Your task to perform on an android device: install app "Google Translate" Image 0: 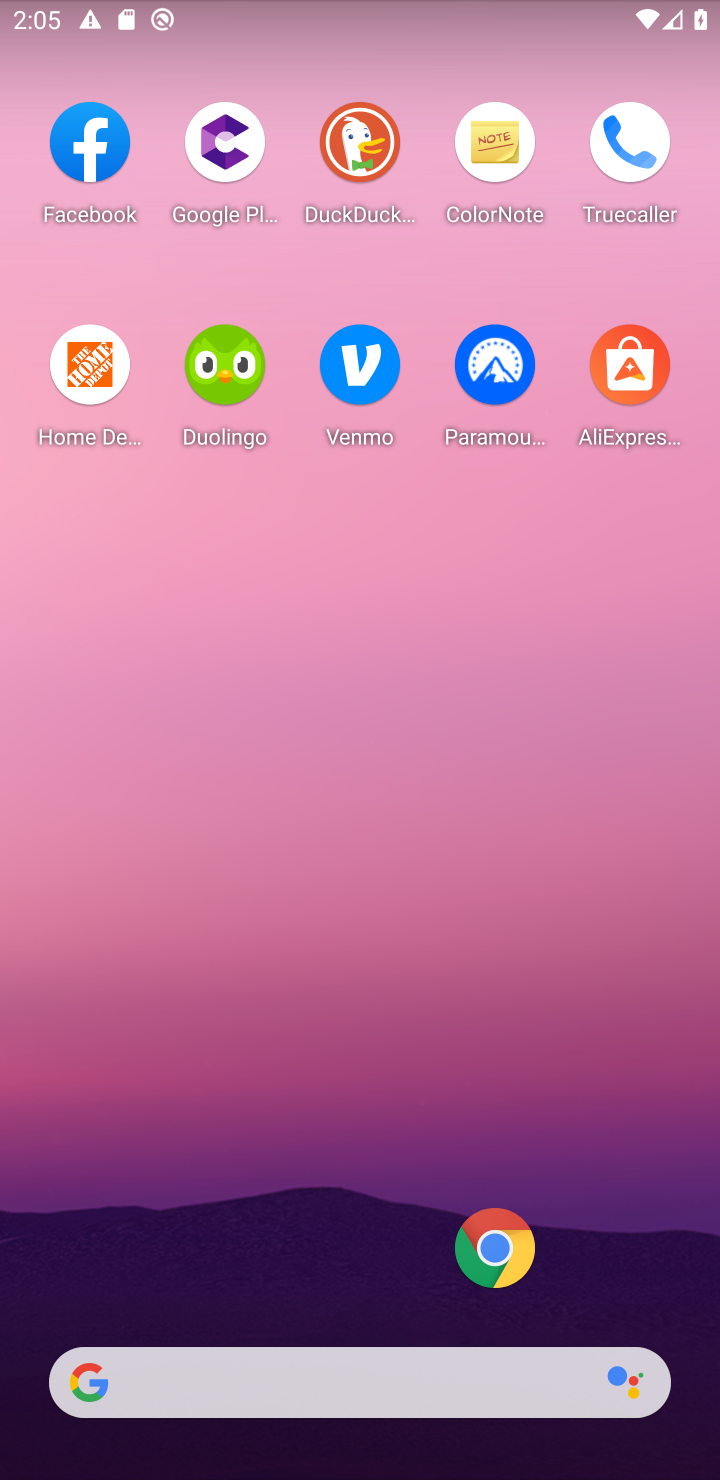
Step 0: click (54, 83)
Your task to perform on an android device: install app "Google Translate" Image 1: 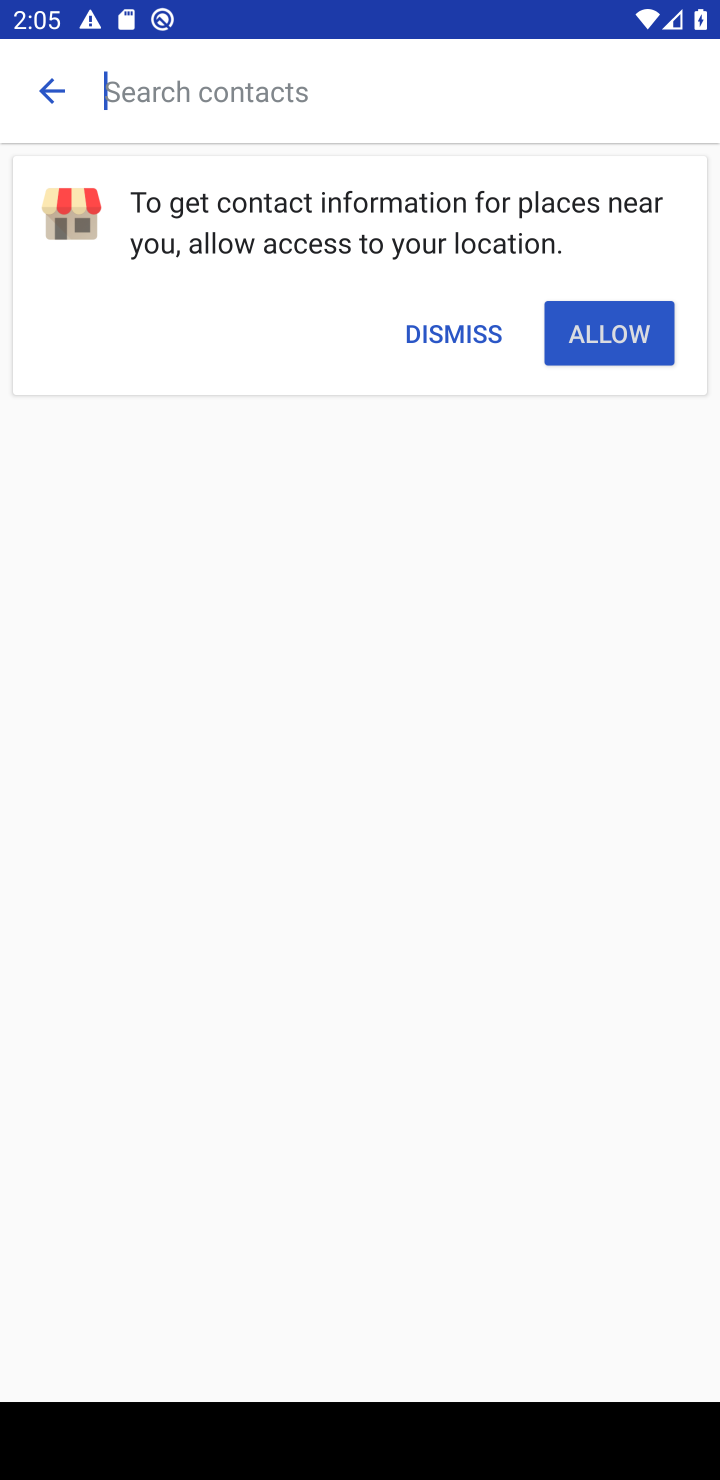
Step 1: drag from (171, 1273) to (226, 545)
Your task to perform on an android device: install app "Google Translate" Image 2: 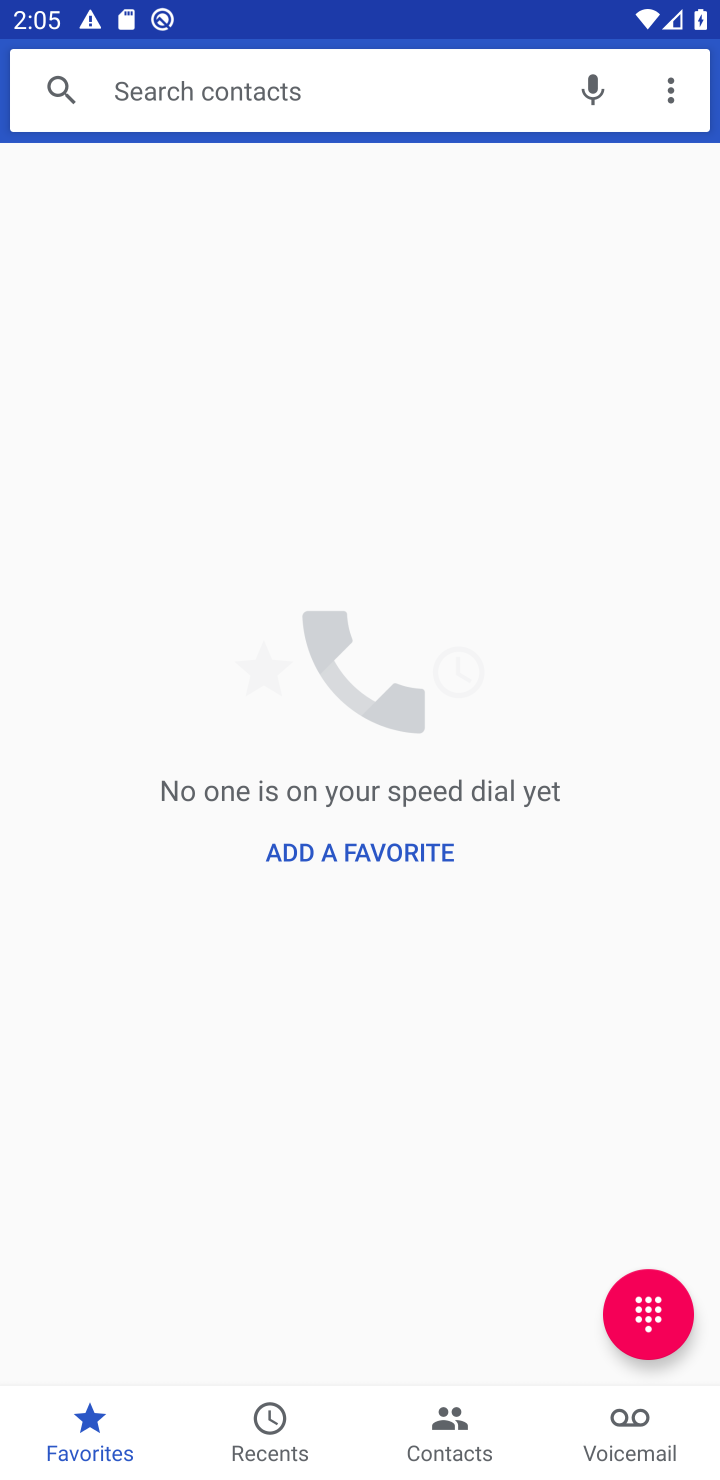
Step 2: press home button
Your task to perform on an android device: install app "Google Translate" Image 3: 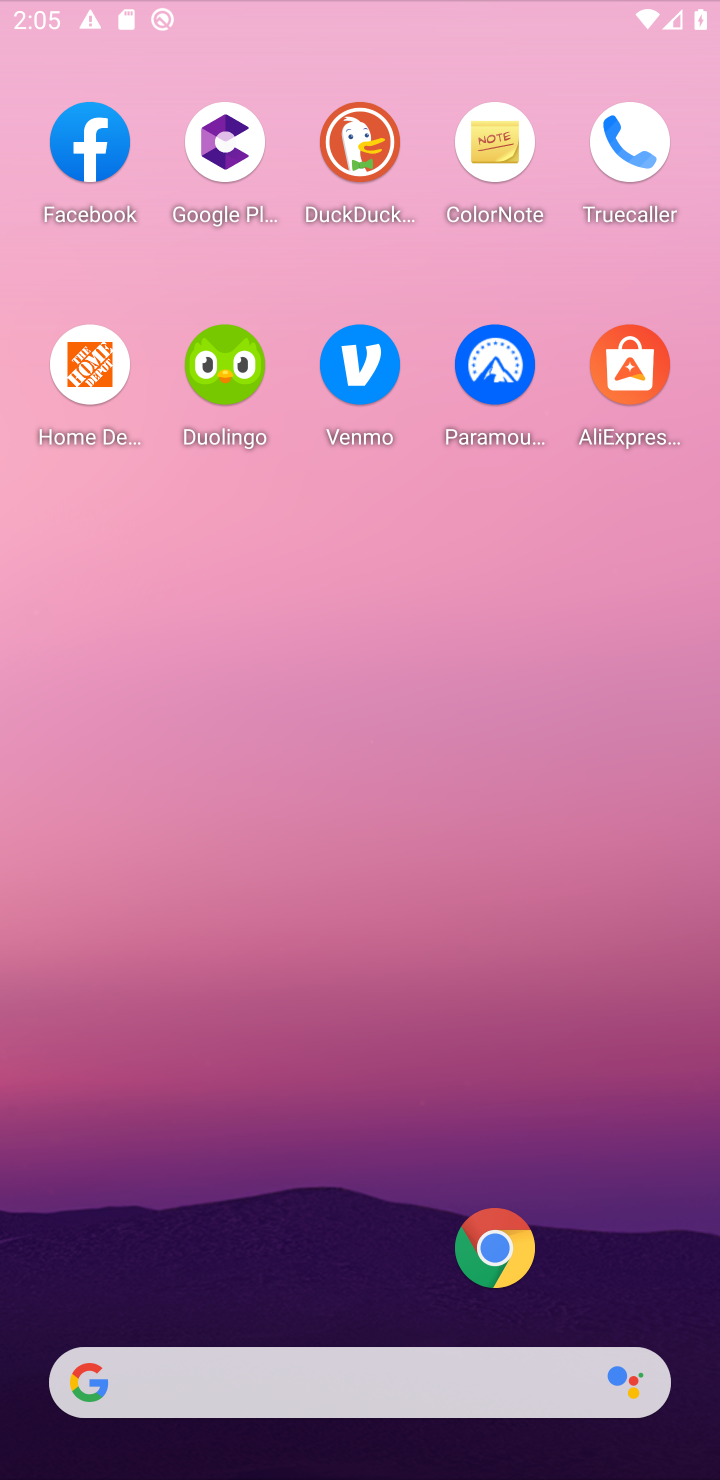
Step 3: drag from (397, 718) to (446, 405)
Your task to perform on an android device: install app "Google Translate" Image 4: 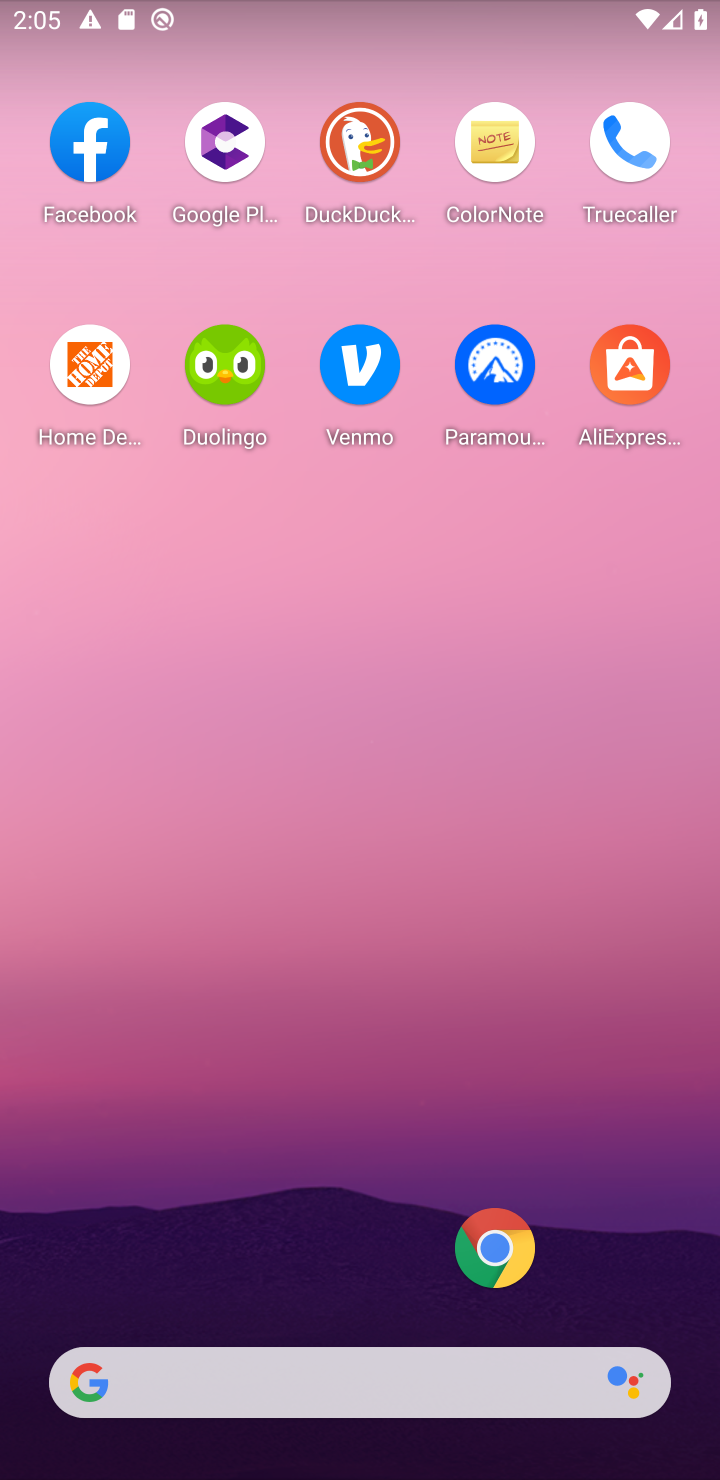
Step 4: drag from (263, 1254) to (271, 202)
Your task to perform on an android device: install app "Google Translate" Image 5: 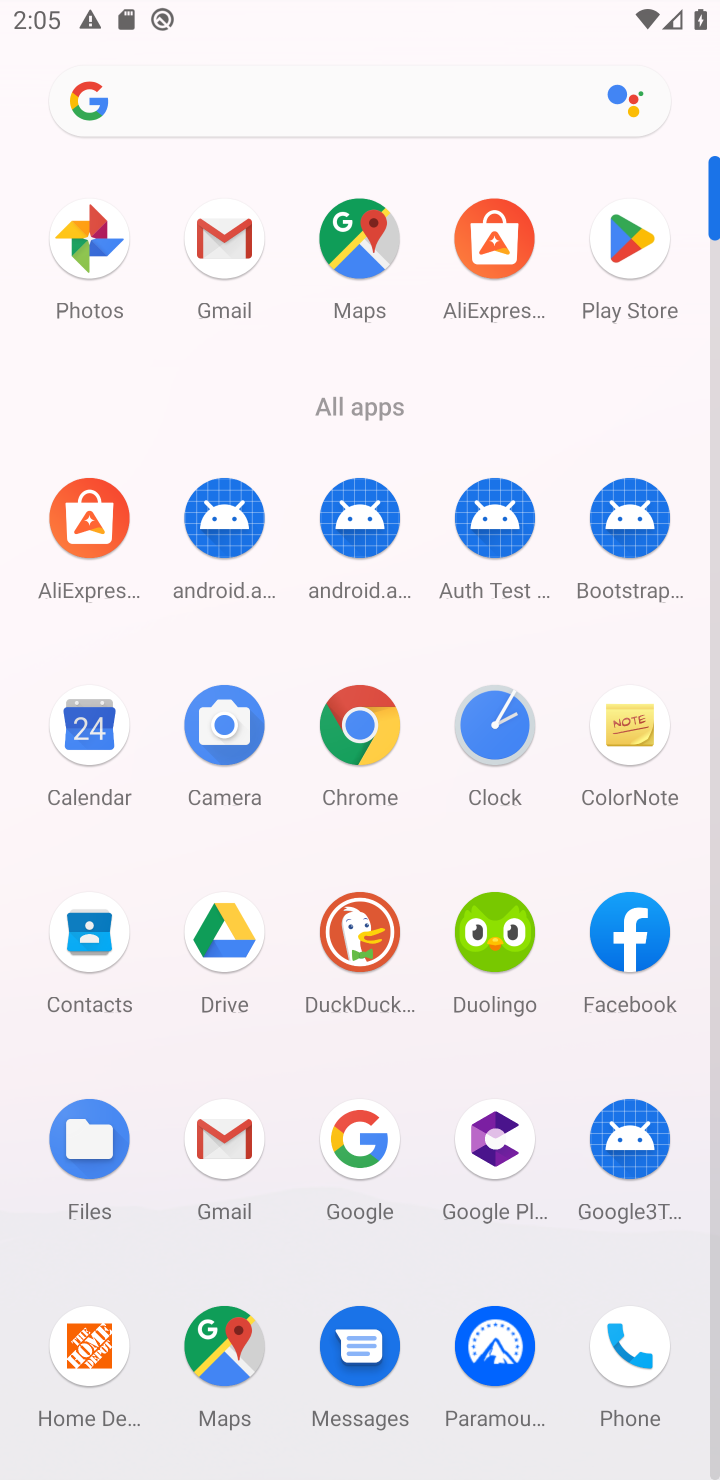
Step 5: click (642, 221)
Your task to perform on an android device: install app "Google Translate" Image 6: 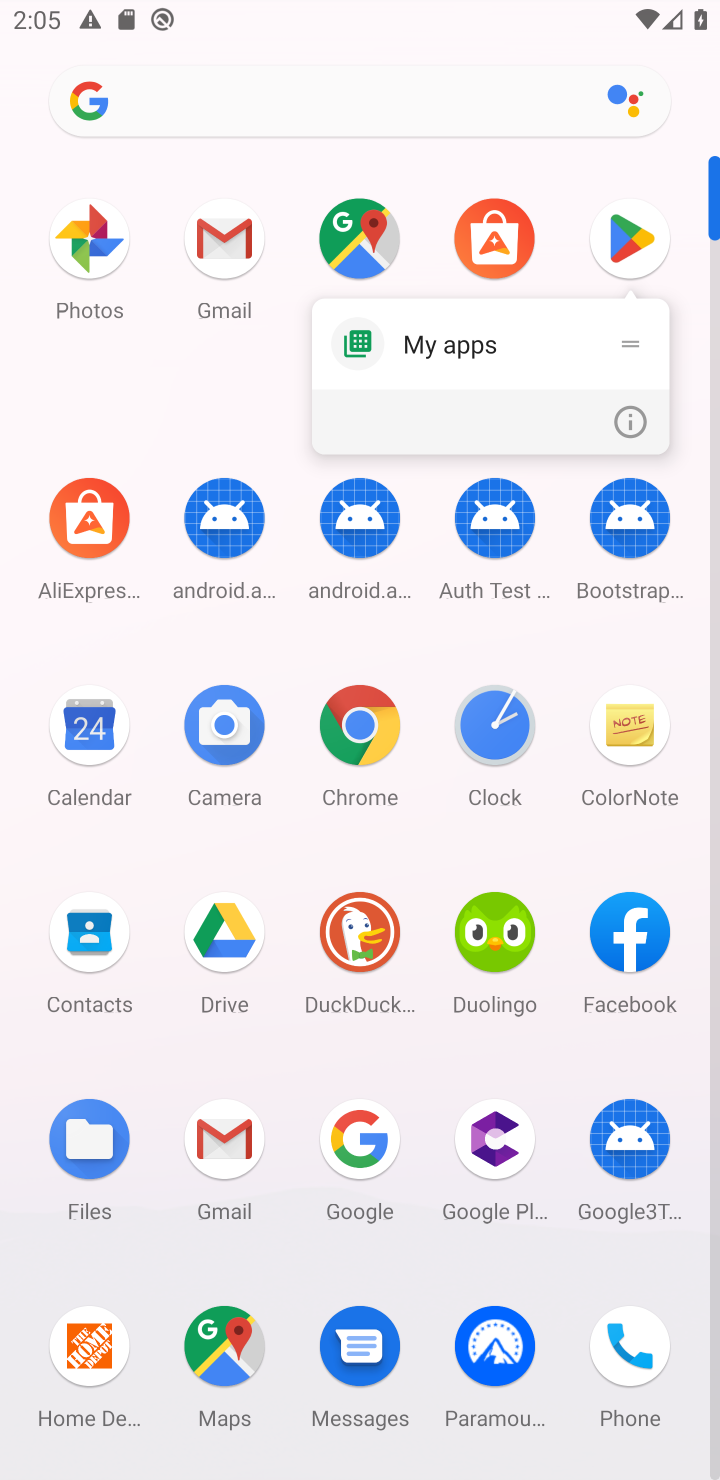
Step 6: click (631, 230)
Your task to perform on an android device: install app "Google Translate" Image 7: 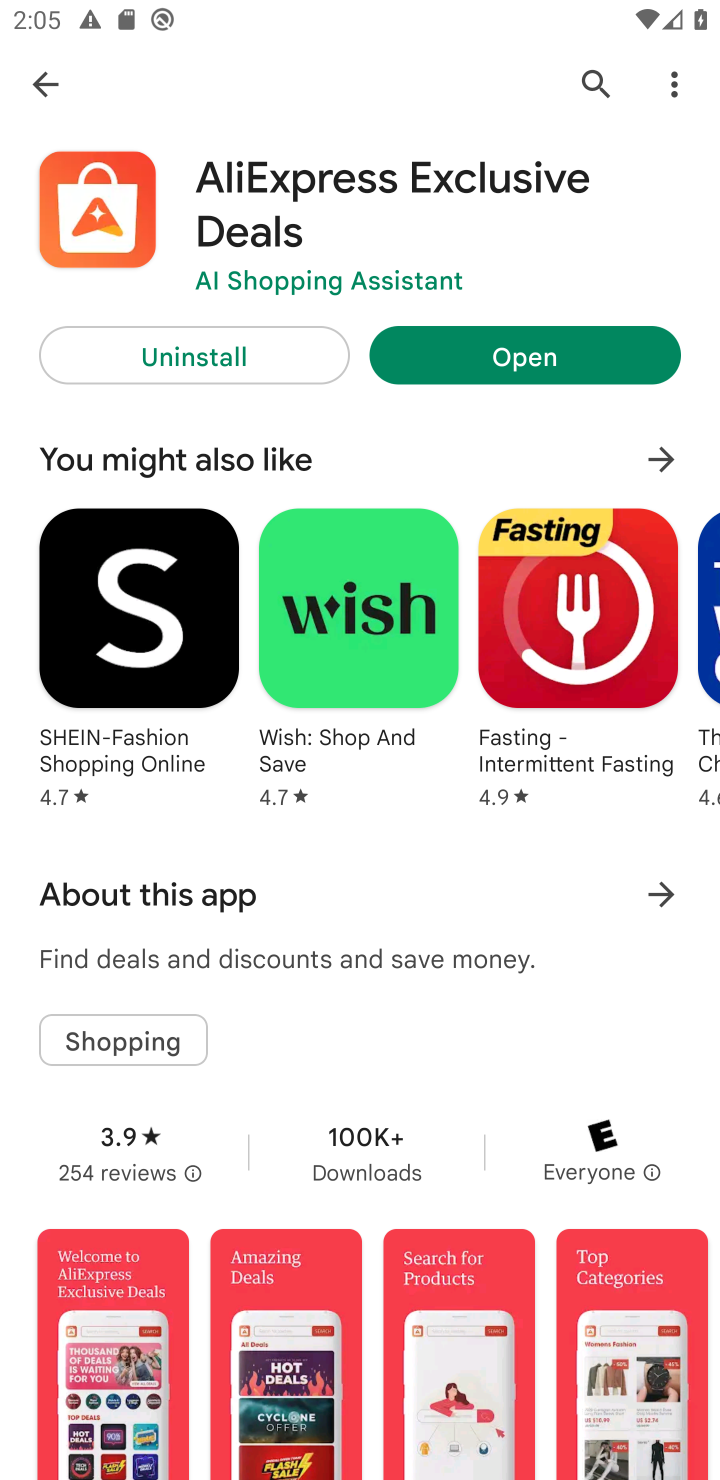
Step 7: click (72, 92)
Your task to perform on an android device: install app "Google Translate" Image 8: 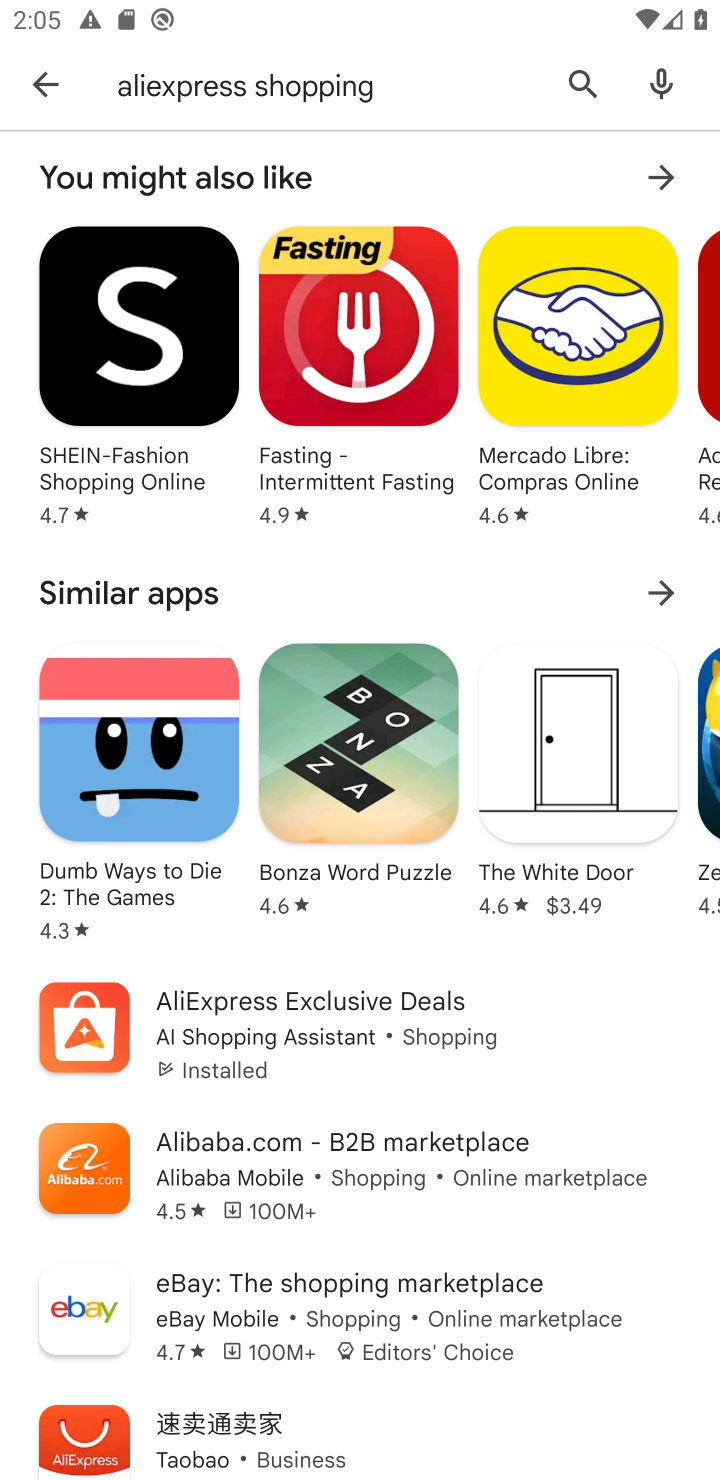
Step 8: click (578, 75)
Your task to perform on an android device: install app "Google Translate" Image 9: 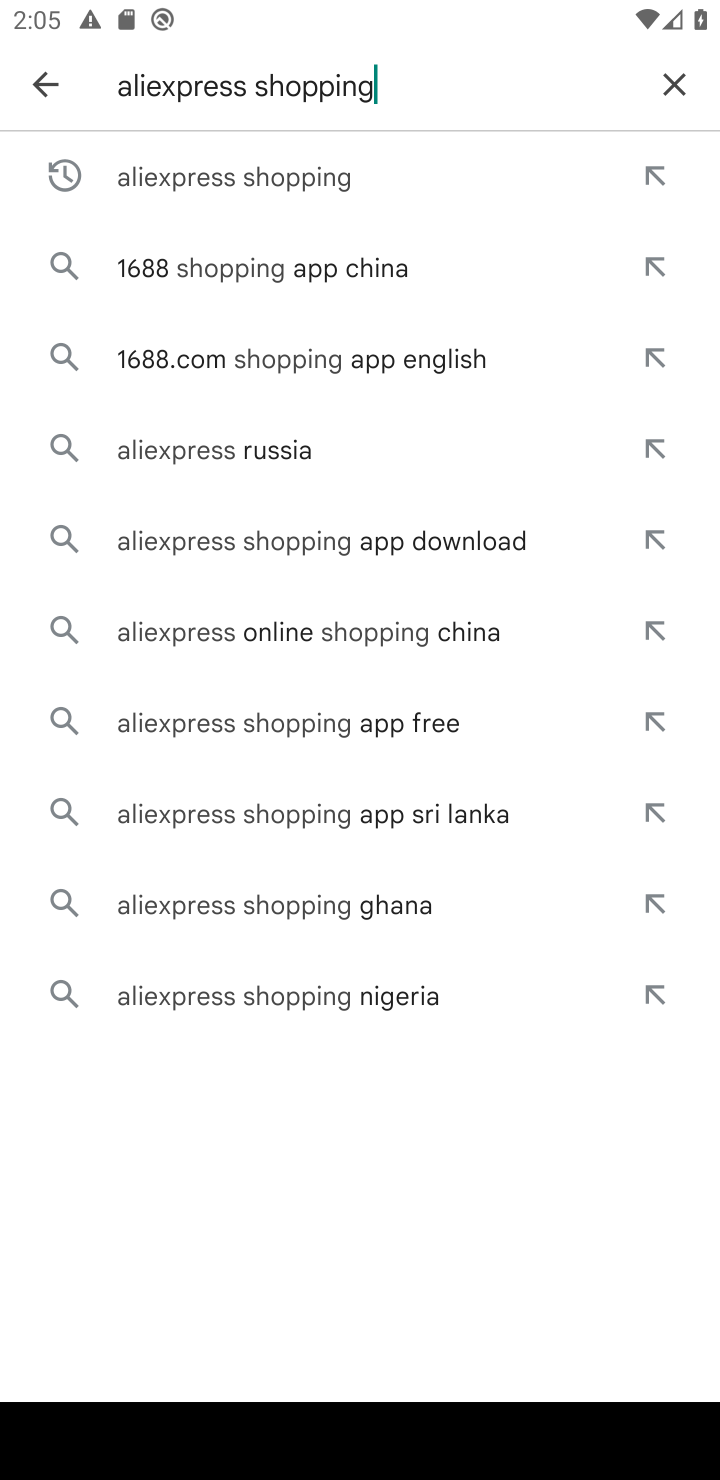
Step 9: click (677, 85)
Your task to perform on an android device: install app "Google Translate" Image 10: 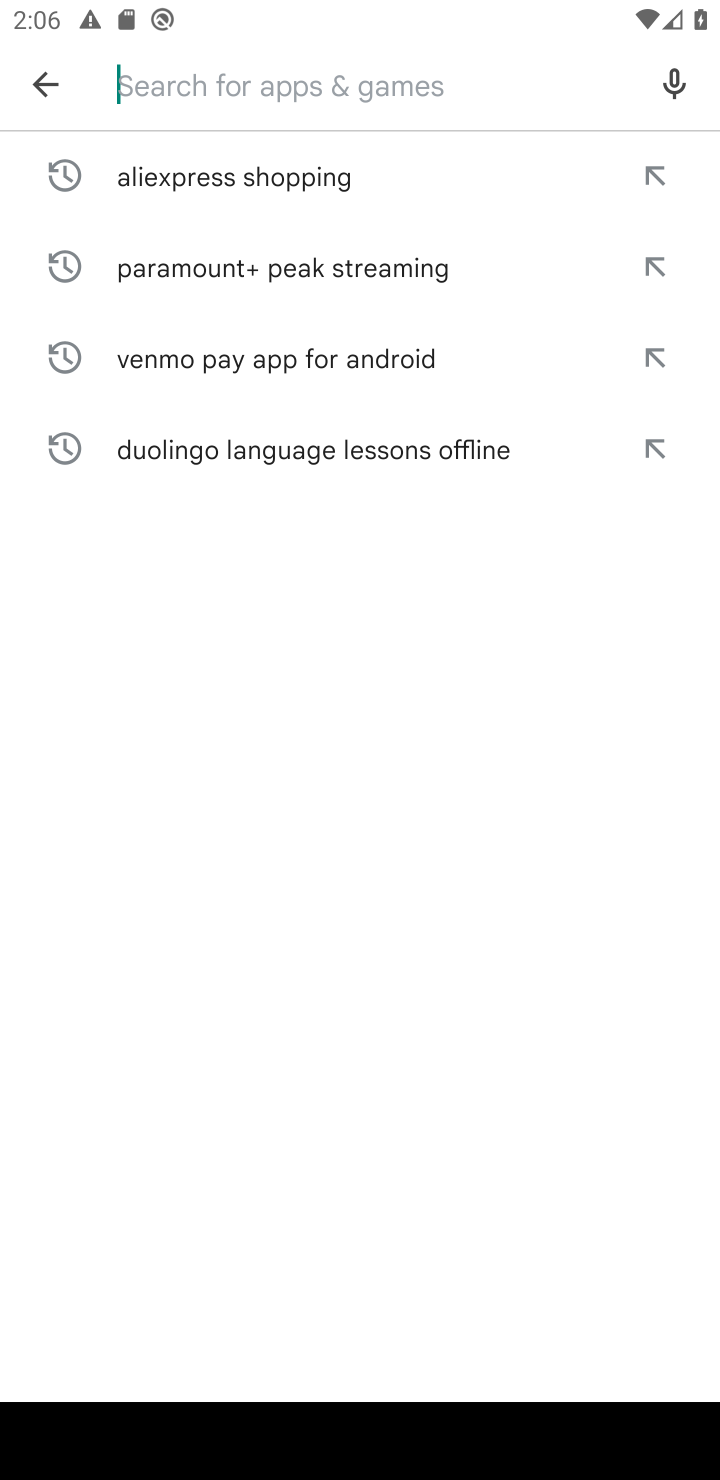
Step 10: click (165, 55)
Your task to perform on an android device: install app "Google Translate" Image 11: 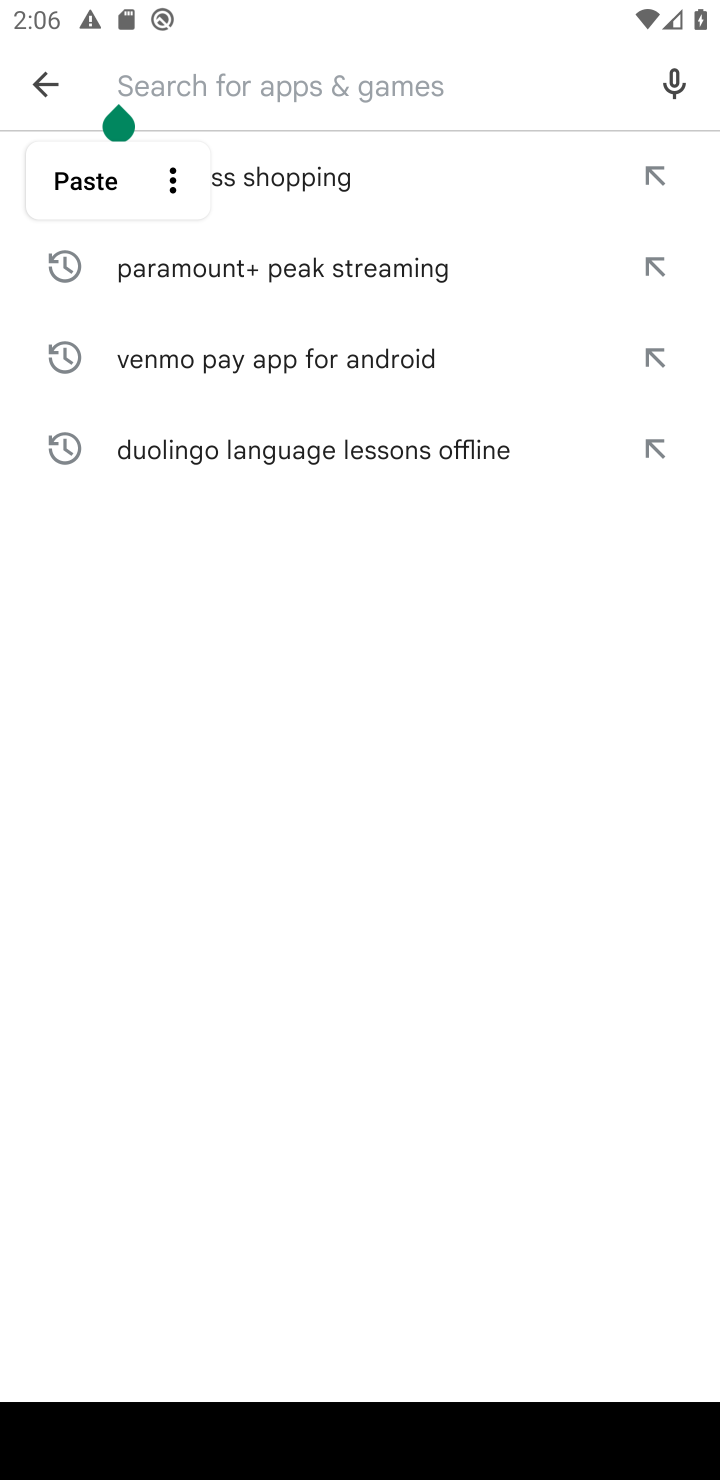
Step 11: type "Google Translate "
Your task to perform on an android device: install app "Google Translate" Image 12: 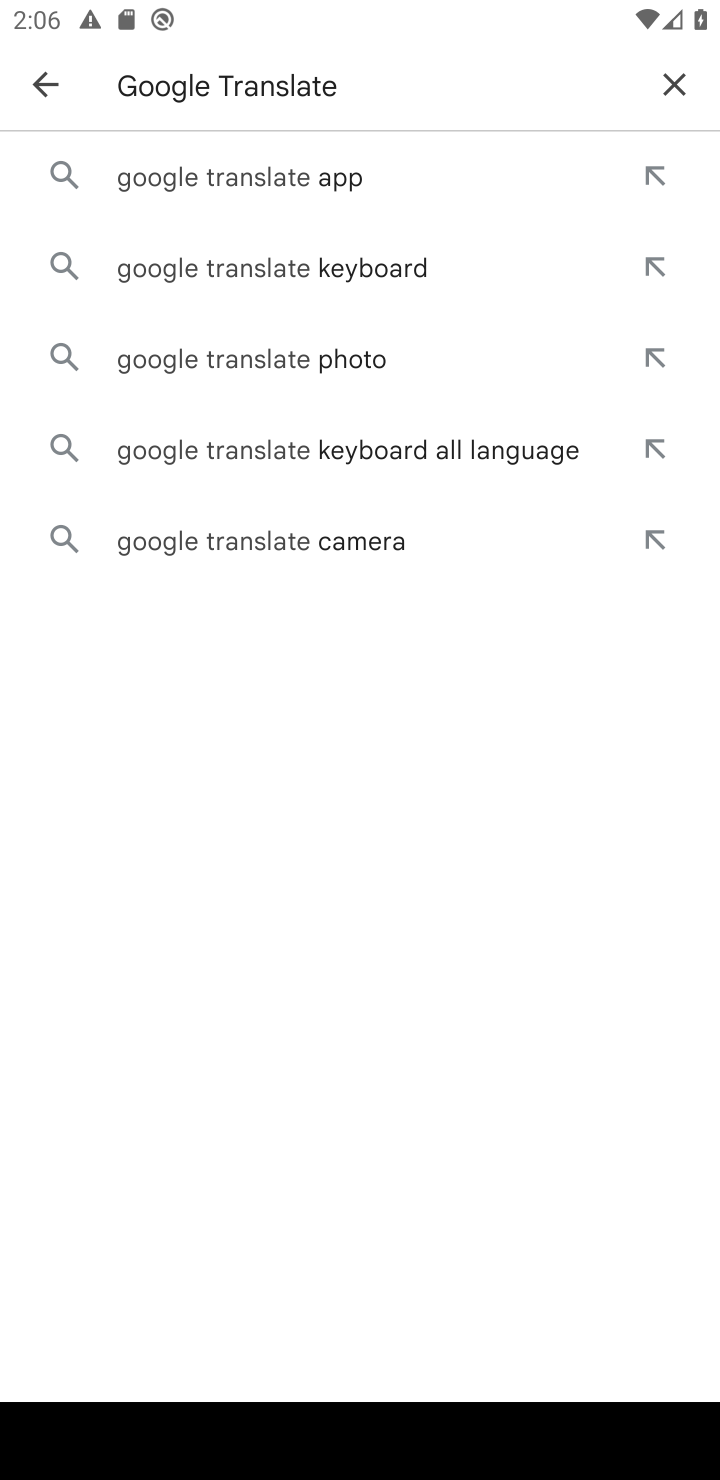
Step 12: click (262, 159)
Your task to perform on an android device: install app "Google Translate" Image 13: 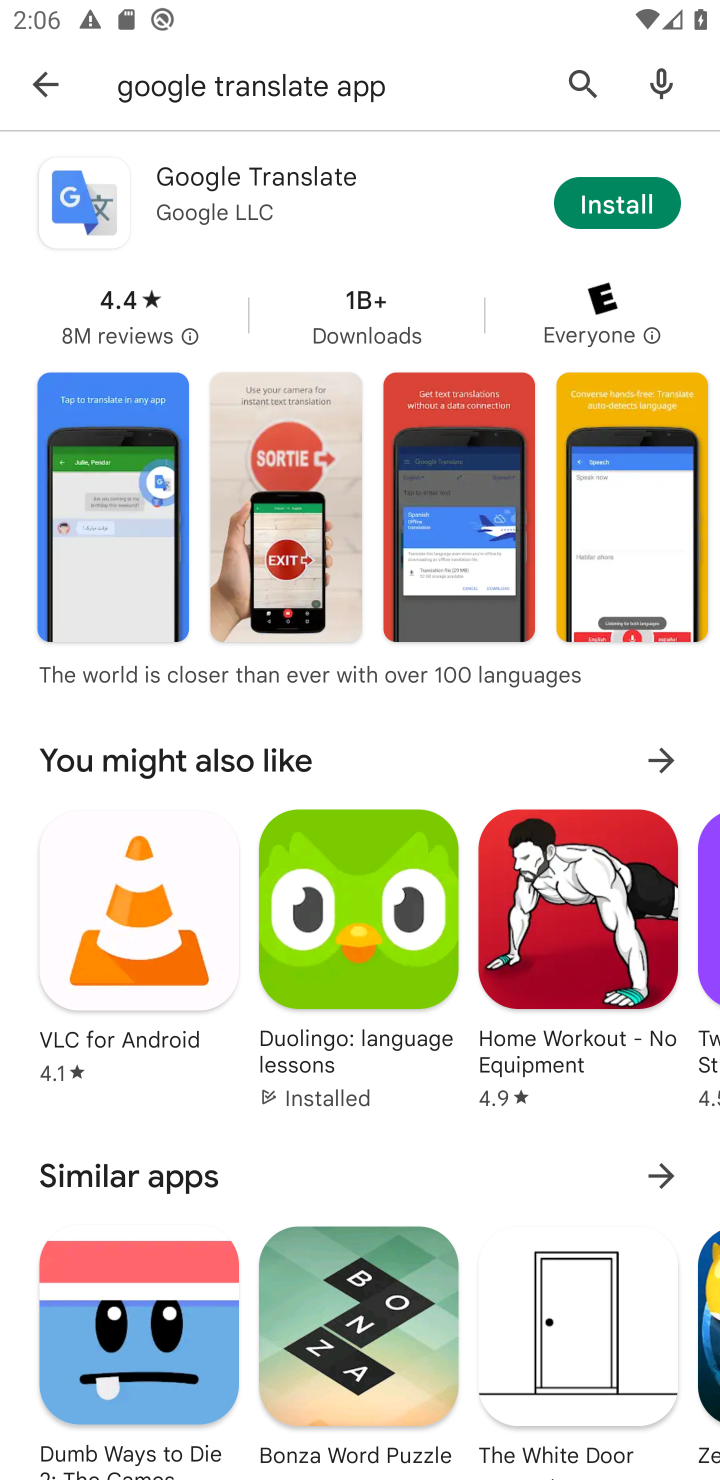
Step 13: click (600, 180)
Your task to perform on an android device: install app "Google Translate" Image 14: 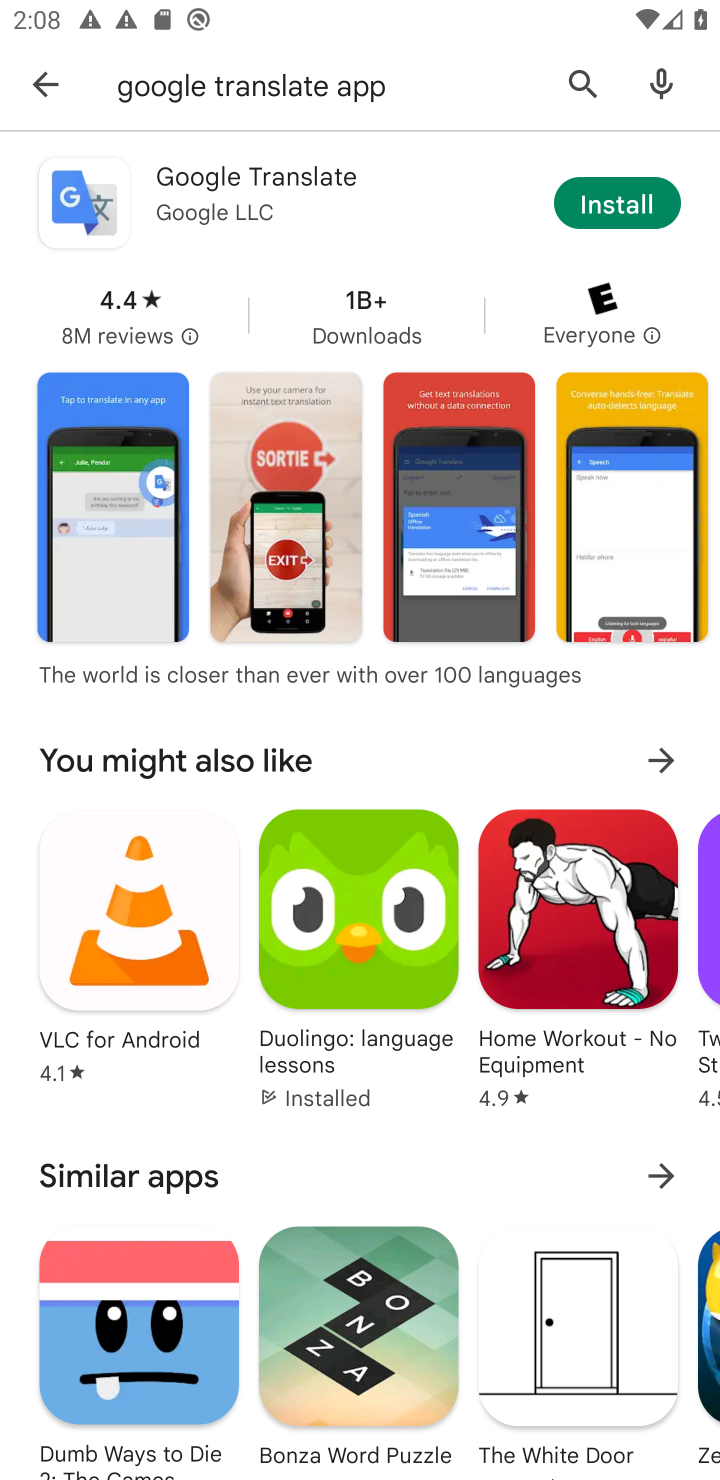
Step 14: task complete